Your task to perform on an android device: Open calendar and show me the fourth week of next month Image 0: 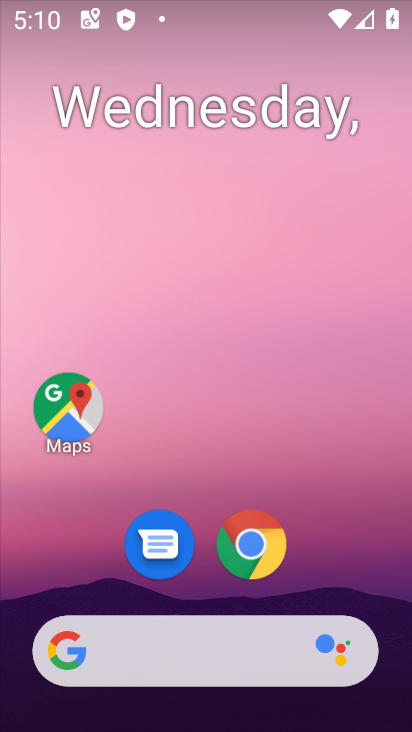
Step 0: drag from (389, 636) to (382, 137)
Your task to perform on an android device: Open calendar and show me the fourth week of next month Image 1: 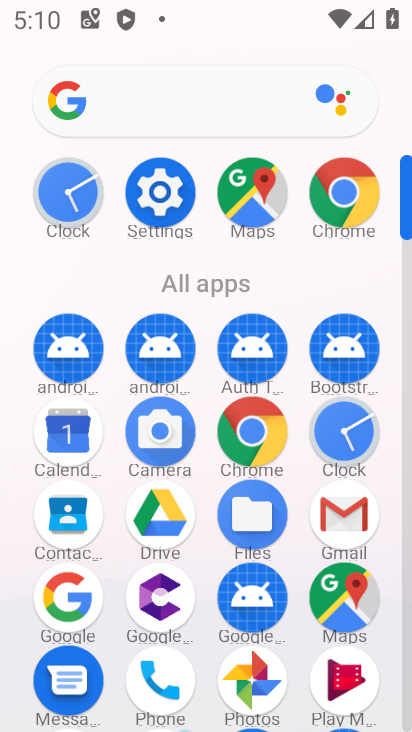
Step 1: click (81, 440)
Your task to perform on an android device: Open calendar and show me the fourth week of next month Image 2: 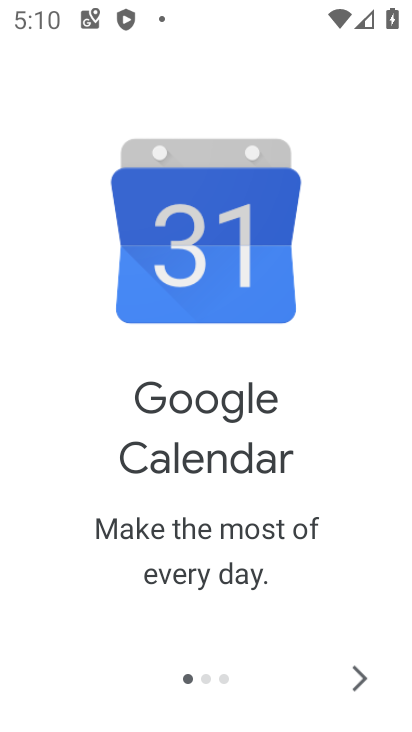
Step 2: click (358, 668)
Your task to perform on an android device: Open calendar and show me the fourth week of next month Image 3: 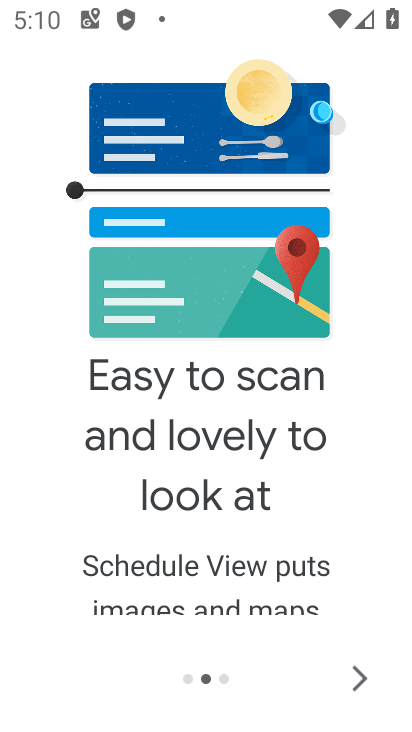
Step 3: click (358, 668)
Your task to perform on an android device: Open calendar and show me the fourth week of next month Image 4: 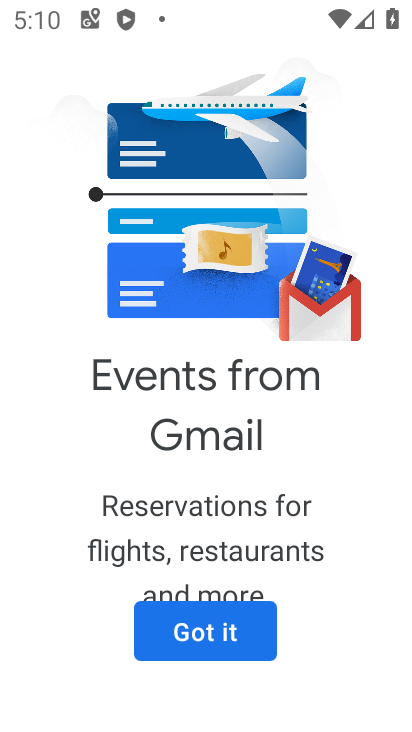
Step 4: click (195, 621)
Your task to perform on an android device: Open calendar and show me the fourth week of next month Image 5: 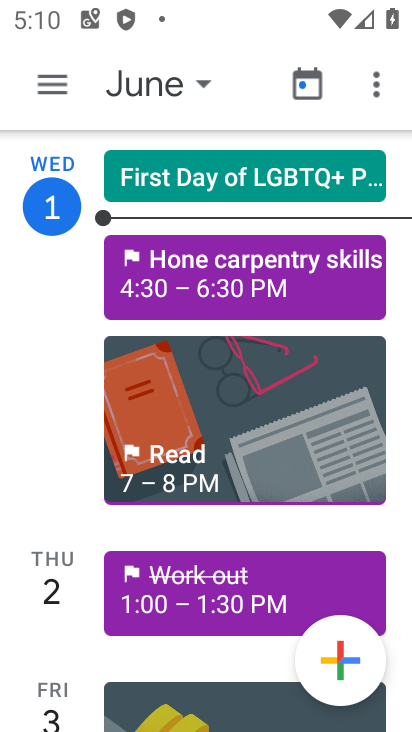
Step 5: click (189, 84)
Your task to perform on an android device: Open calendar and show me the fourth week of next month Image 6: 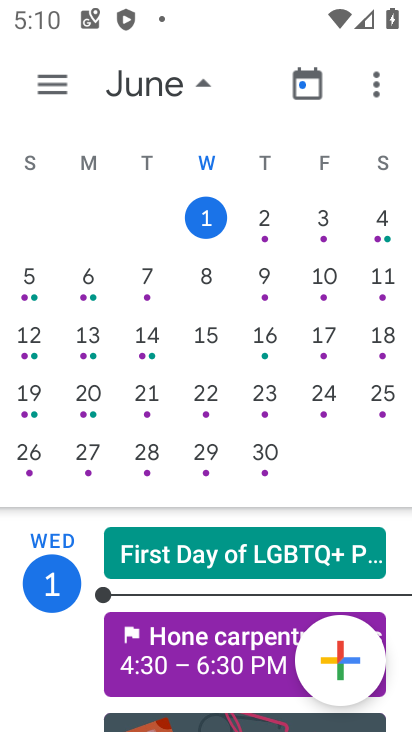
Step 6: drag from (398, 343) to (81, 312)
Your task to perform on an android device: Open calendar and show me the fourth week of next month Image 7: 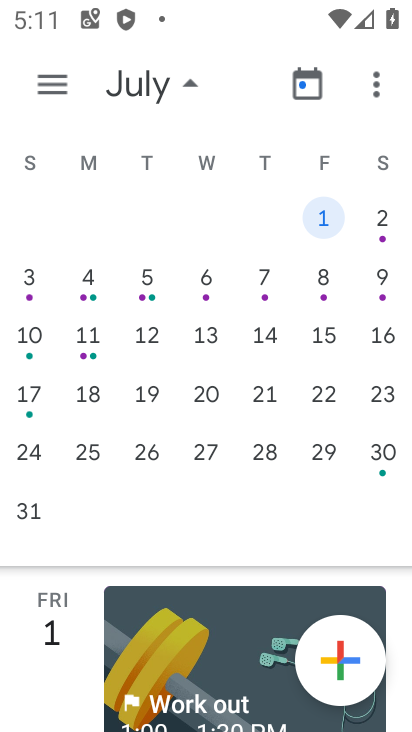
Step 7: click (269, 390)
Your task to perform on an android device: Open calendar and show me the fourth week of next month Image 8: 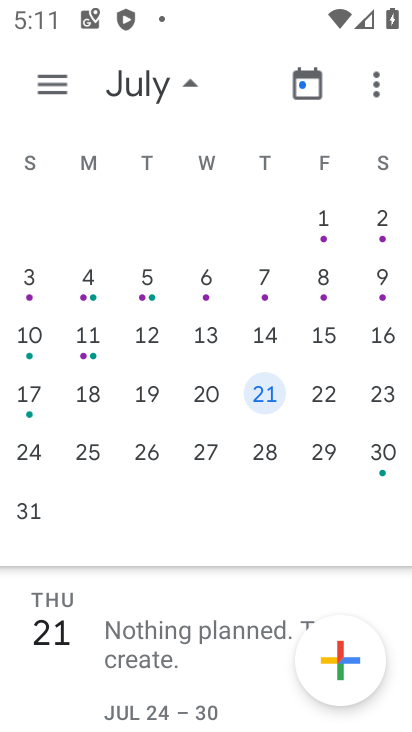
Step 8: click (48, 77)
Your task to perform on an android device: Open calendar and show me the fourth week of next month Image 9: 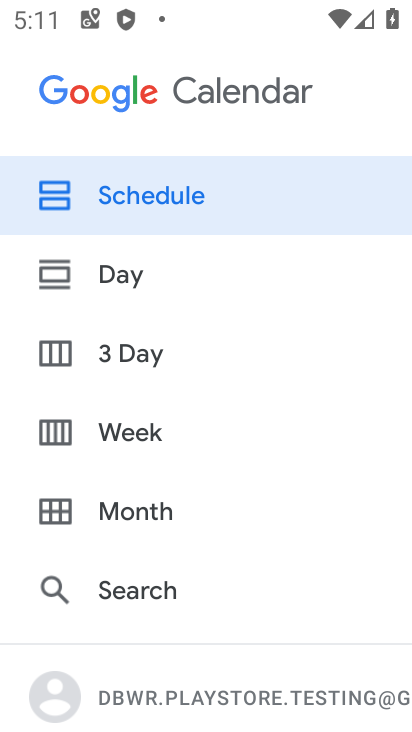
Step 9: click (138, 434)
Your task to perform on an android device: Open calendar and show me the fourth week of next month Image 10: 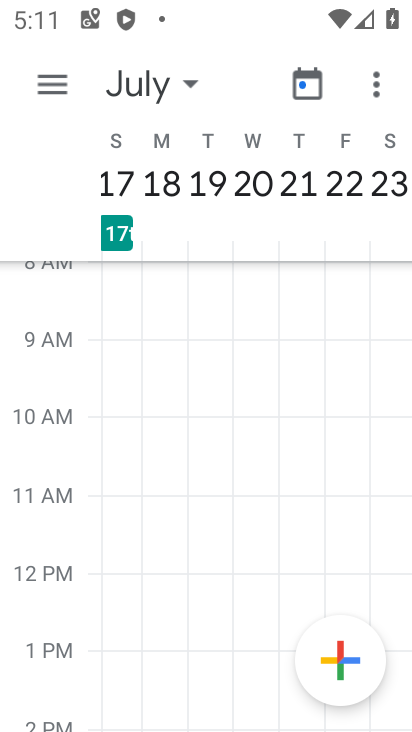
Step 10: task complete